Your task to perform on an android device: add a contact Image 0: 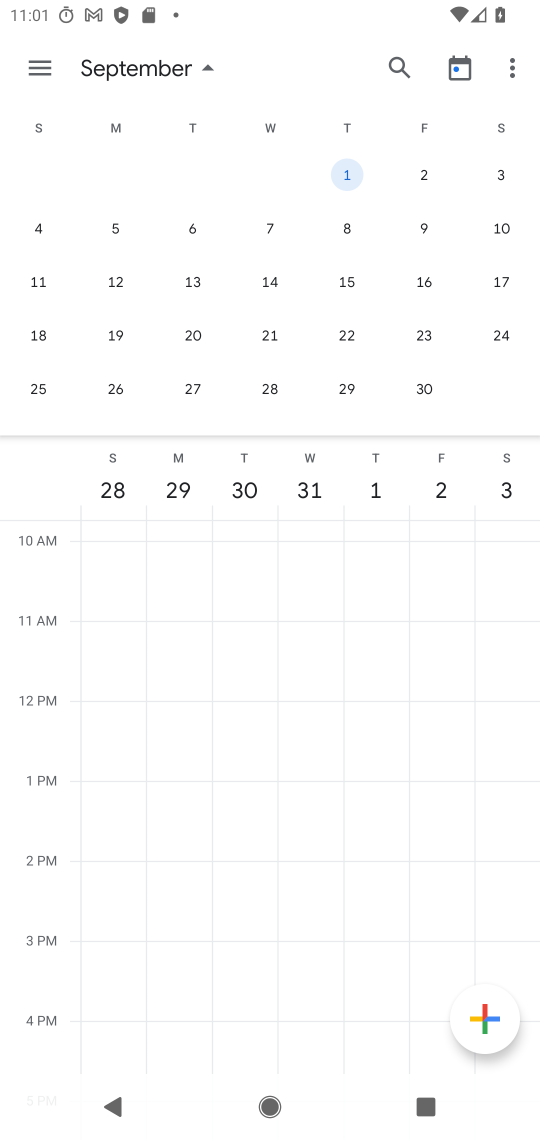
Step 0: press home button
Your task to perform on an android device: add a contact Image 1: 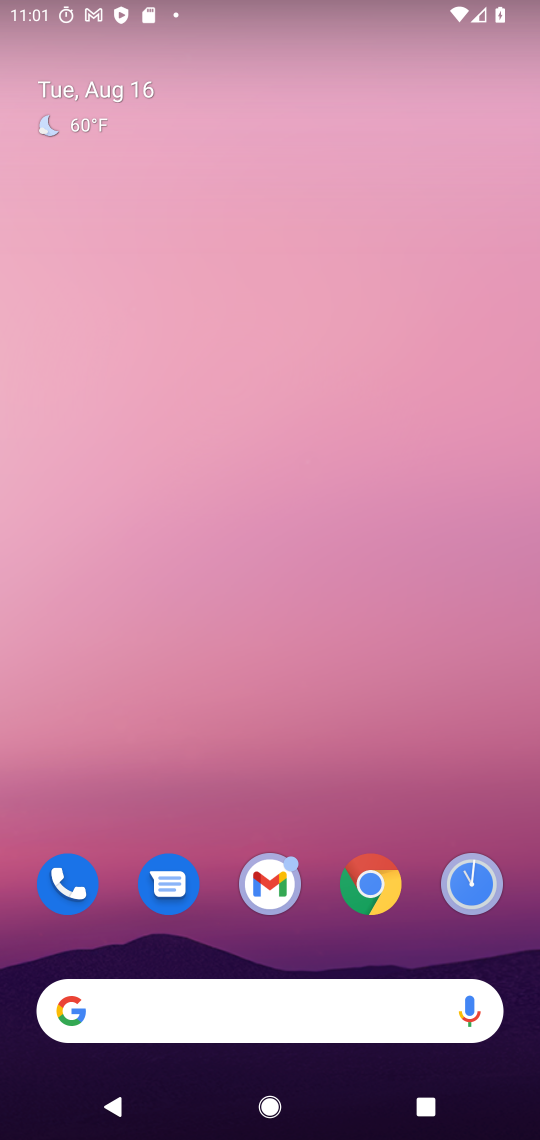
Step 1: drag from (249, 894) to (182, 54)
Your task to perform on an android device: add a contact Image 2: 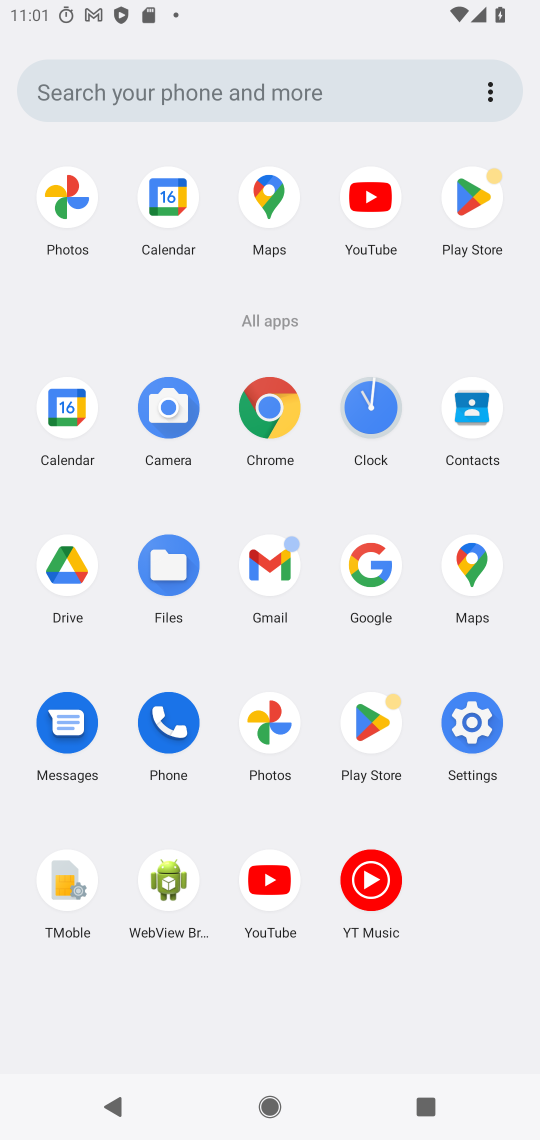
Step 2: click (454, 412)
Your task to perform on an android device: add a contact Image 3: 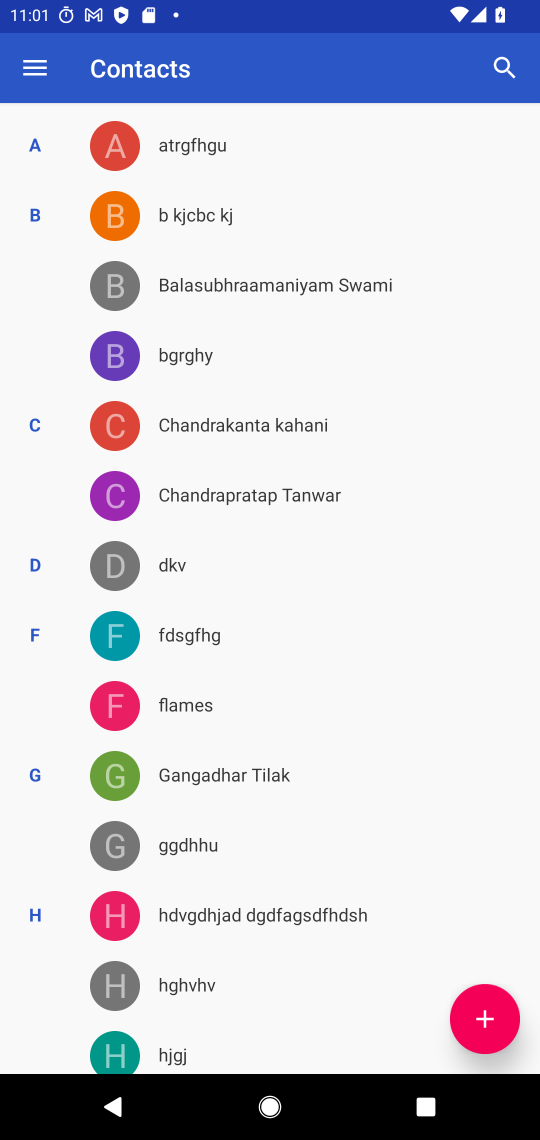
Step 3: click (495, 1043)
Your task to perform on an android device: add a contact Image 4: 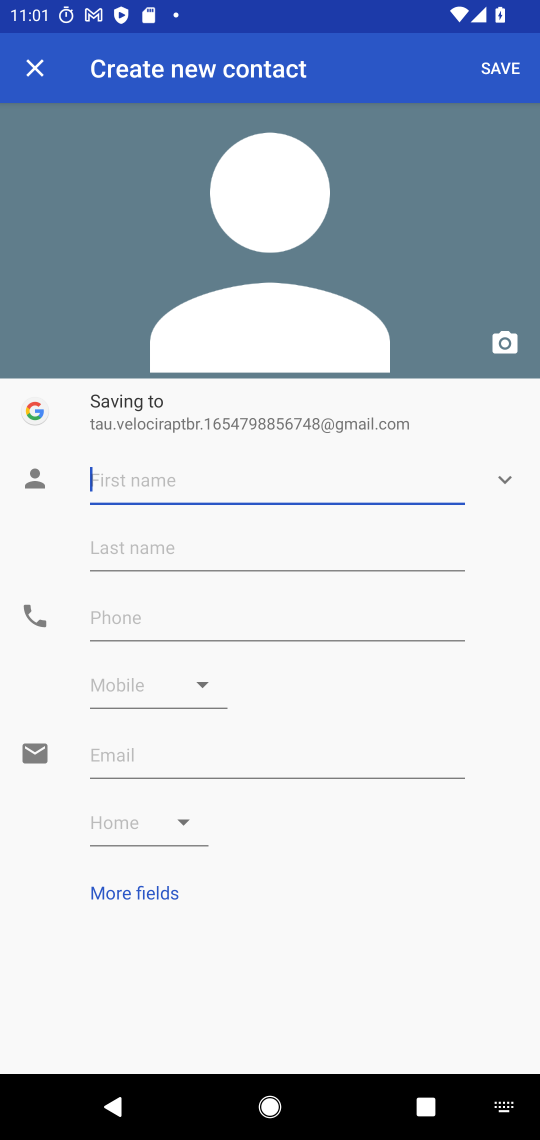
Step 4: type "Zoya"
Your task to perform on an android device: add a contact Image 5: 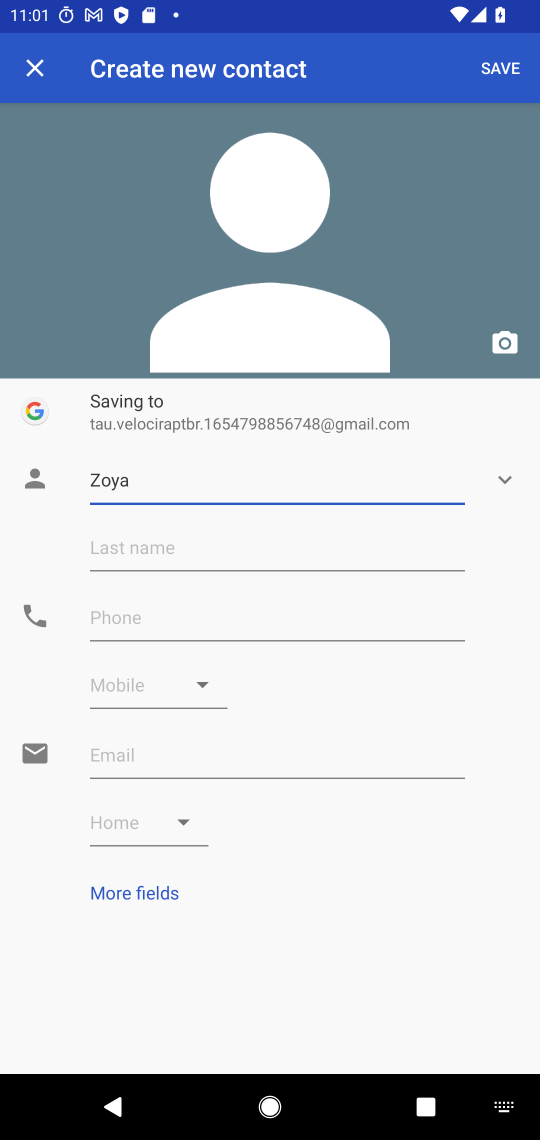
Step 5: click (127, 532)
Your task to perform on an android device: add a contact Image 6: 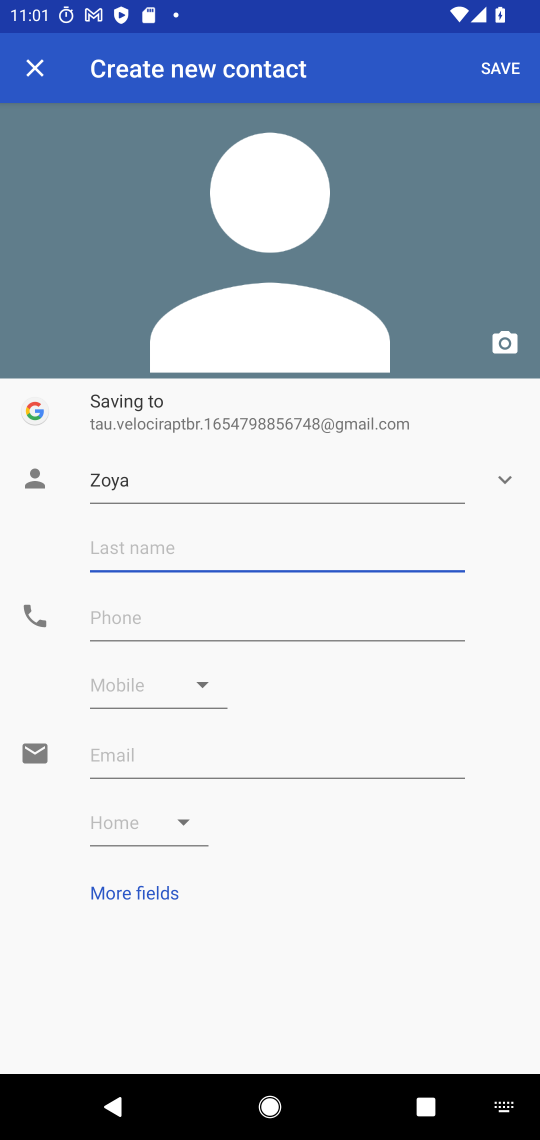
Step 6: type "Akhtar"
Your task to perform on an android device: add a contact Image 7: 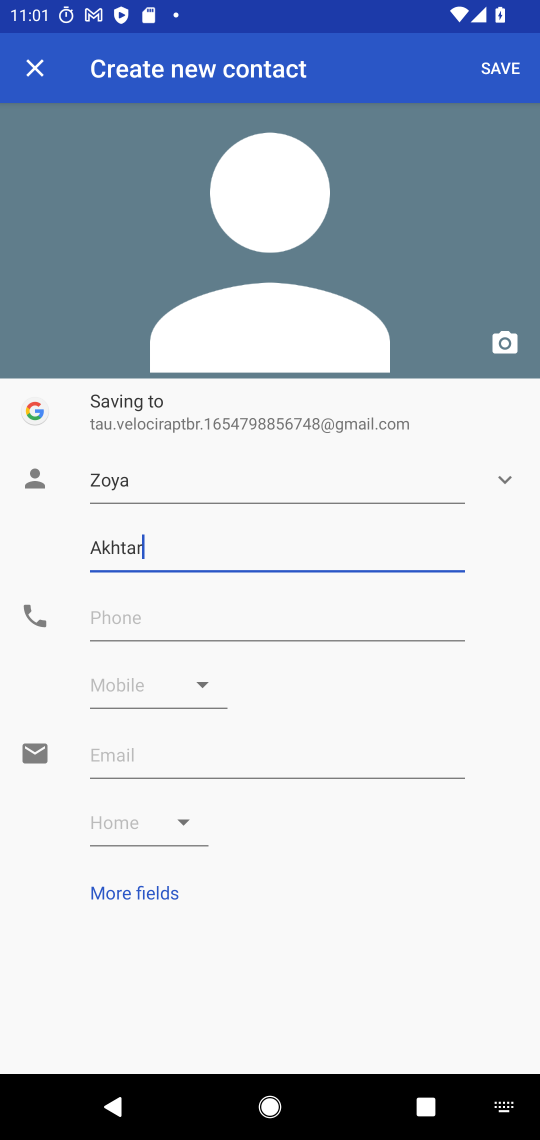
Step 7: click (178, 613)
Your task to perform on an android device: add a contact Image 8: 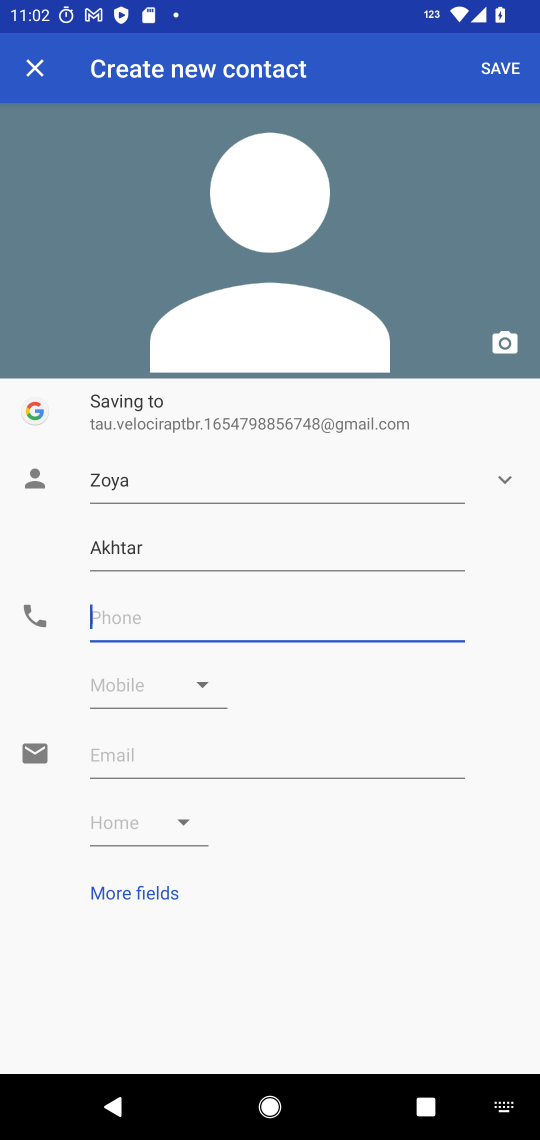
Step 8: type "7655678900"
Your task to perform on an android device: add a contact Image 9: 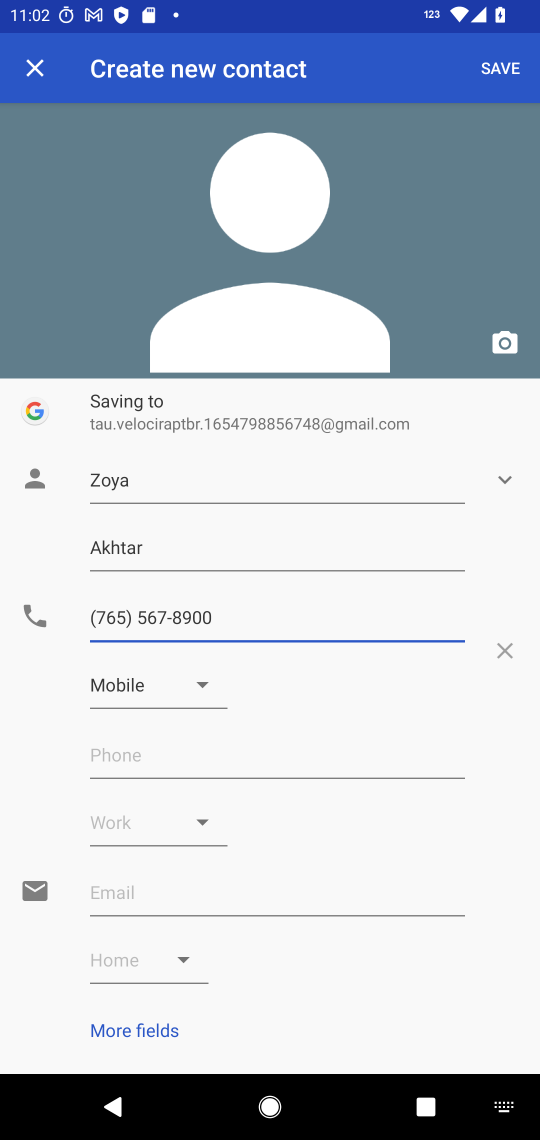
Step 9: click (506, 68)
Your task to perform on an android device: add a contact Image 10: 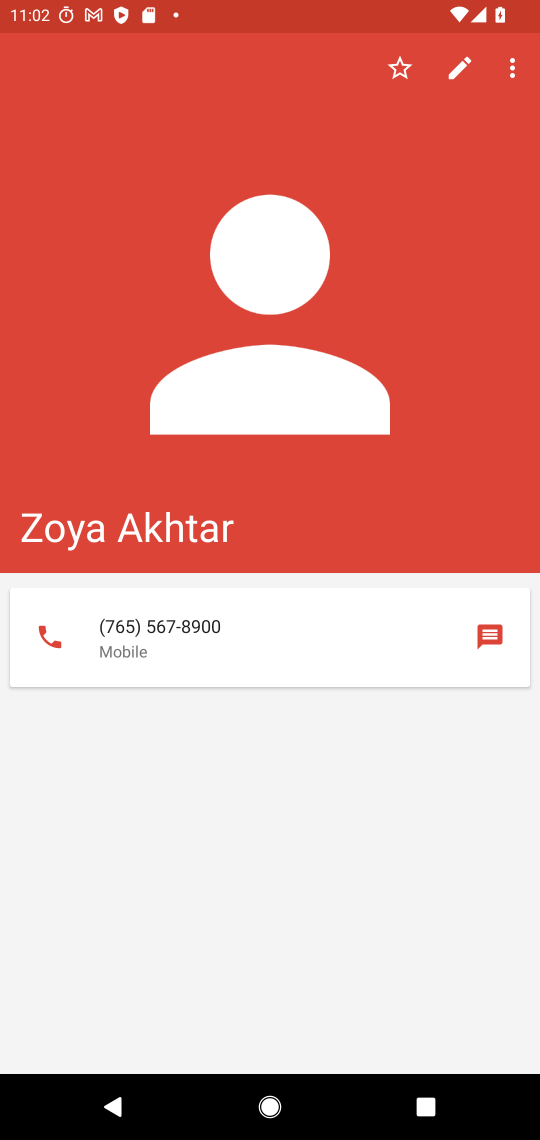
Step 10: task complete